Your task to perform on an android device: Go to accessibility settings Image 0: 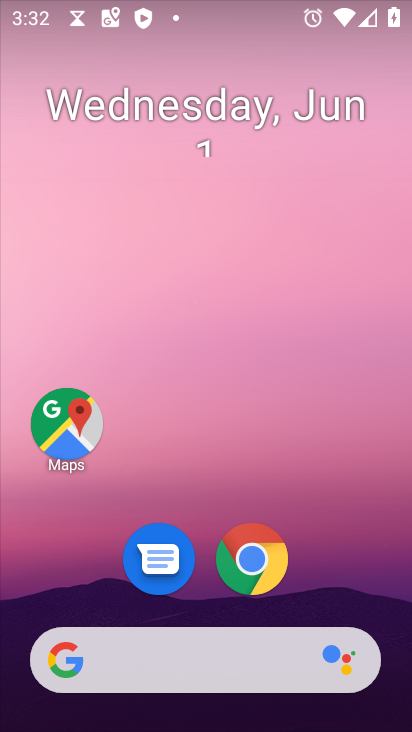
Step 0: drag from (325, 590) to (331, 1)
Your task to perform on an android device: Go to accessibility settings Image 1: 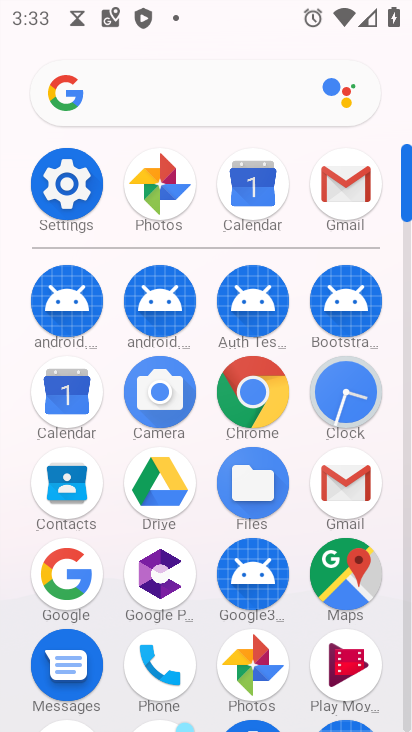
Step 1: click (73, 183)
Your task to perform on an android device: Go to accessibility settings Image 2: 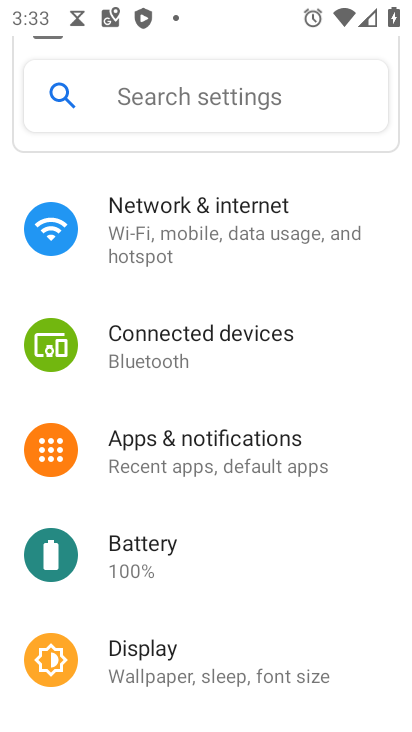
Step 2: drag from (228, 506) to (217, 385)
Your task to perform on an android device: Go to accessibility settings Image 3: 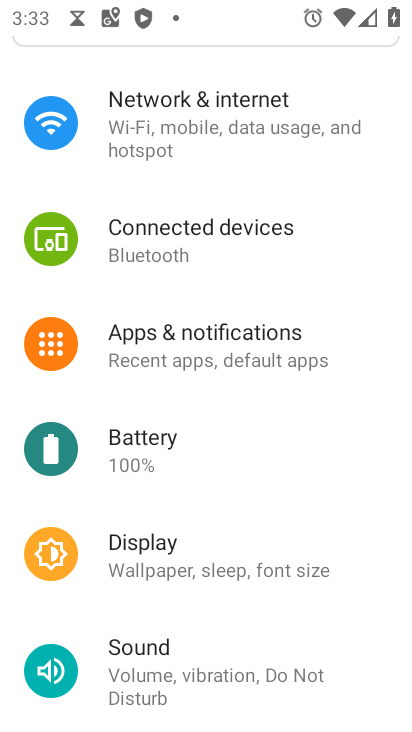
Step 3: drag from (216, 579) to (208, 440)
Your task to perform on an android device: Go to accessibility settings Image 4: 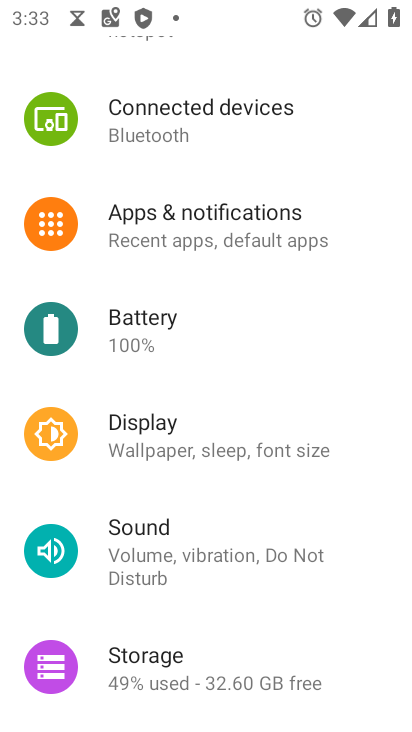
Step 4: drag from (214, 600) to (198, 456)
Your task to perform on an android device: Go to accessibility settings Image 5: 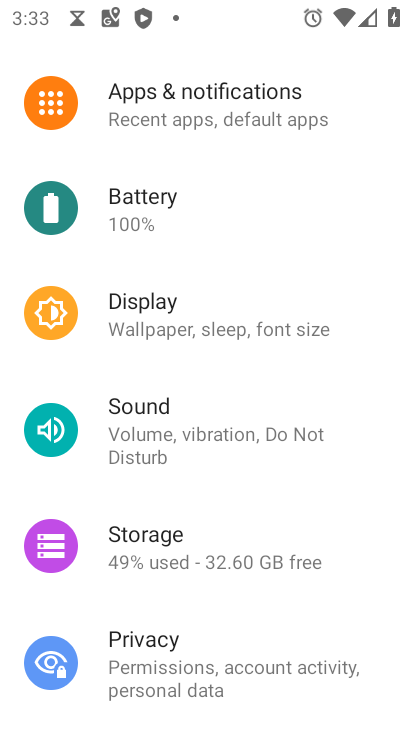
Step 5: drag from (203, 592) to (188, 485)
Your task to perform on an android device: Go to accessibility settings Image 6: 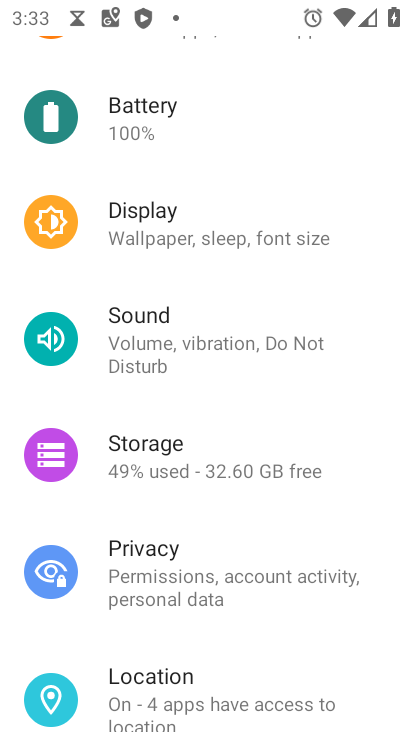
Step 6: drag from (206, 617) to (203, 498)
Your task to perform on an android device: Go to accessibility settings Image 7: 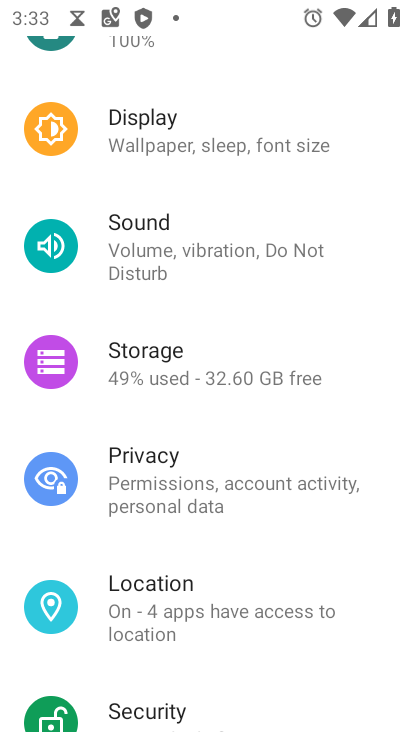
Step 7: drag from (236, 614) to (219, 518)
Your task to perform on an android device: Go to accessibility settings Image 8: 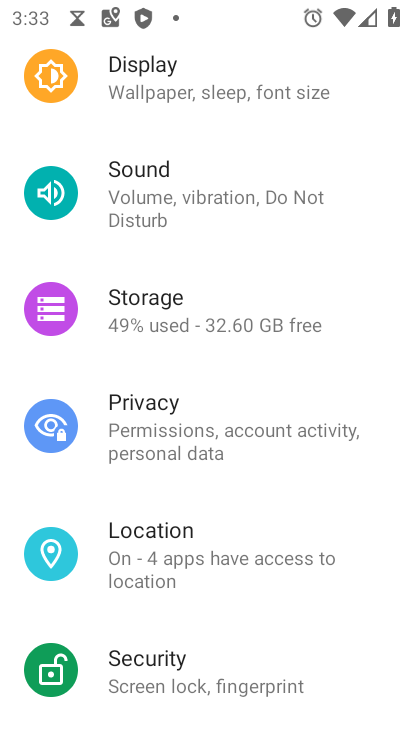
Step 8: drag from (249, 630) to (241, 528)
Your task to perform on an android device: Go to accessibility settings Image 9: 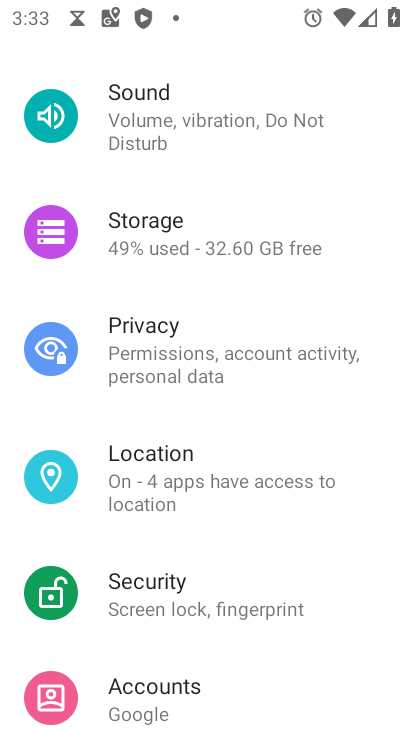
Step 9: drag from (261, 628) to (251, 543)
Your task to perform on an android device: Go to accessibility settings Image 10: 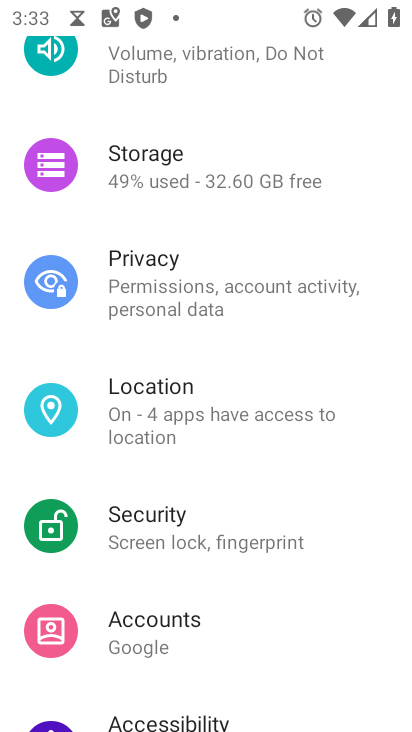
Step 10: drag from (267, 635) to (264, 558)
Your task to perform on an android device: Go to accessibility settings Image 11: 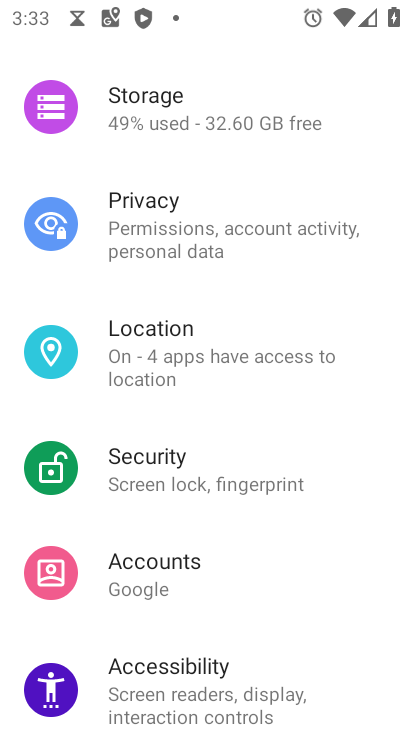
Step 11: click (236, 682)
Your task to perform on an android device: Go to accessibility settings Image 12: 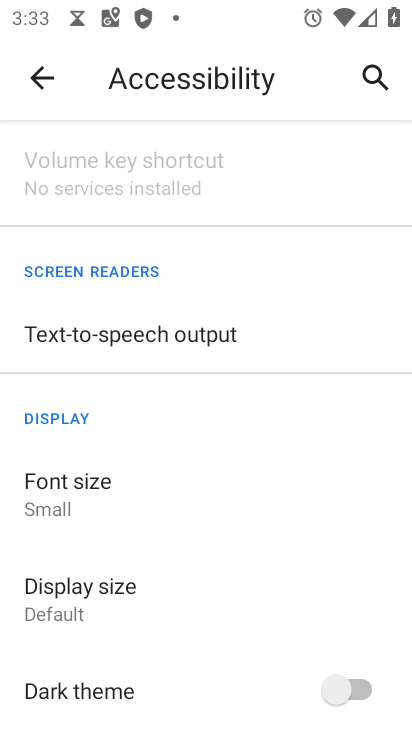
Step 12: task complete